Your task to perform on an android device: Open the web browser Image 0: 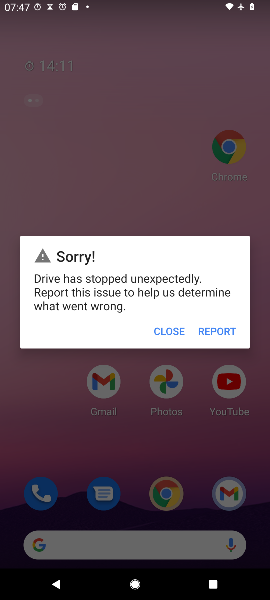
Step 0: press home button
Your task to perform on an android device: Open the web browser Image 1: 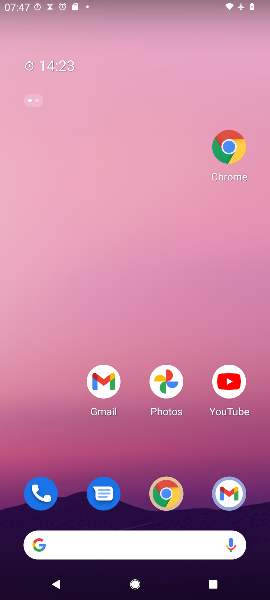
Step 1: click (35, 542)
Your task to perform on an android device: Open the web browser Image 2: 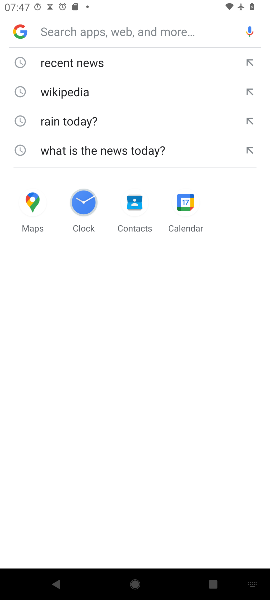
Step 2: click (17, 32)
Your task to perform on an android device: Open the web browser Image 3: 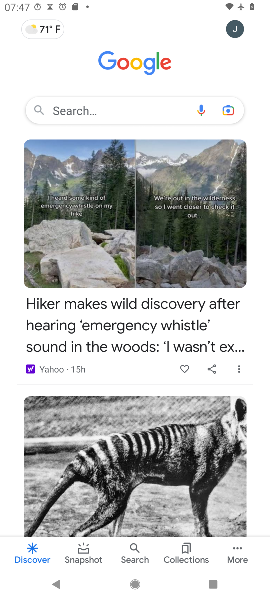
Step 3: task complete